Your task to perform on an android device: open a new tab in the chrome app Image 0: 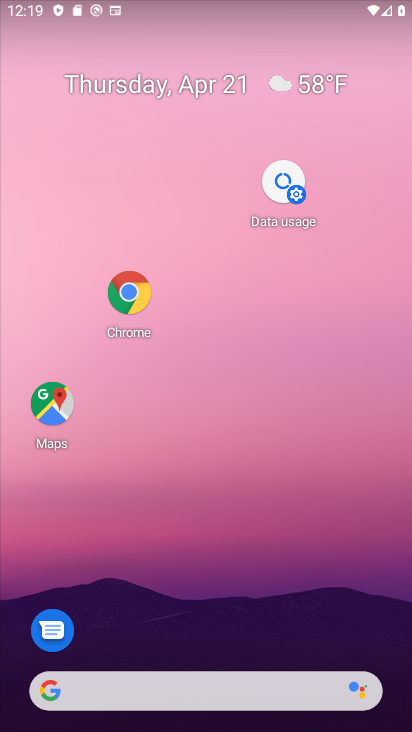
Step 0: click (122, 288)
Your task to perform on an android device: open a new tab in the chrome app Image 1: 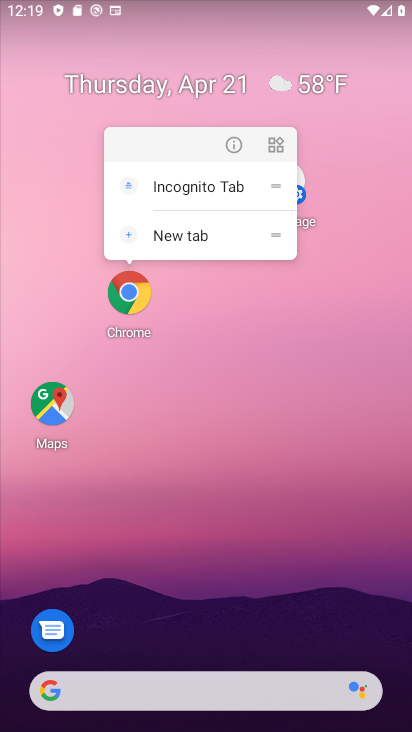
Step 1: click (164, 228)
Your task to perform on an android device: open a new tab in the chrome app Image 2: 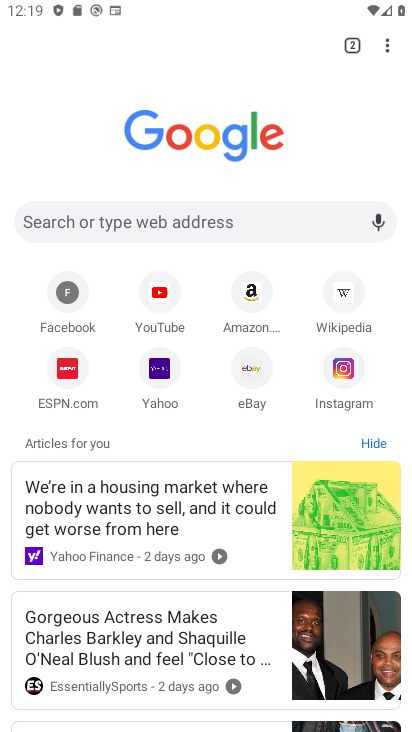
Step 2: click (165, 240)
Your task to perform on an android device: open a new tab in the chrome app Image 3: 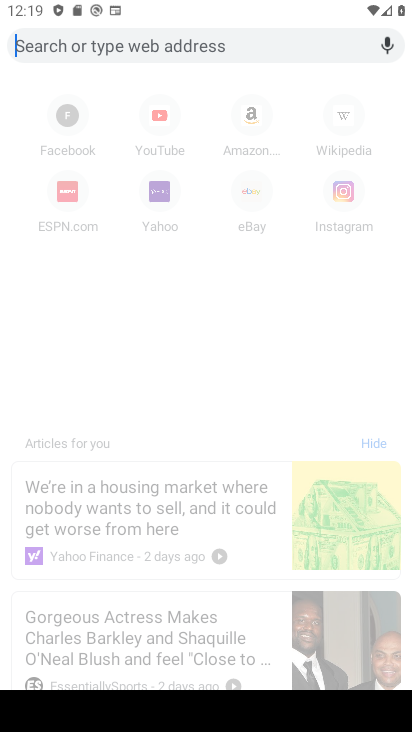
Step 3: task complete